Your task to perform on an android device: Open the Play Movies app and select the watchlist tab. Image 0: 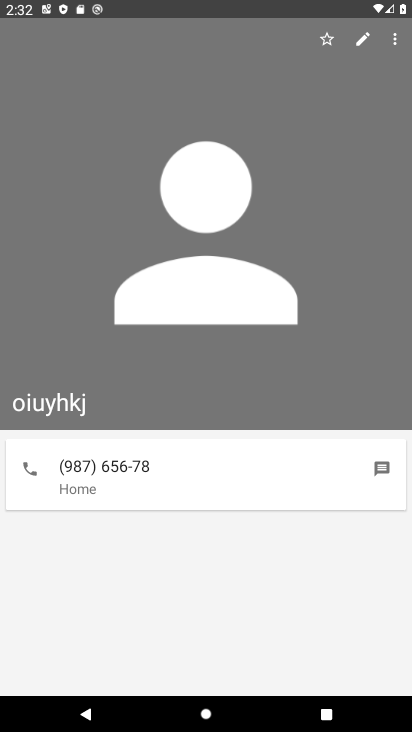
Step 0: press home button
Your task to perform on an android device: Open the Play Movies app and select the watchlist tab. Image 1: 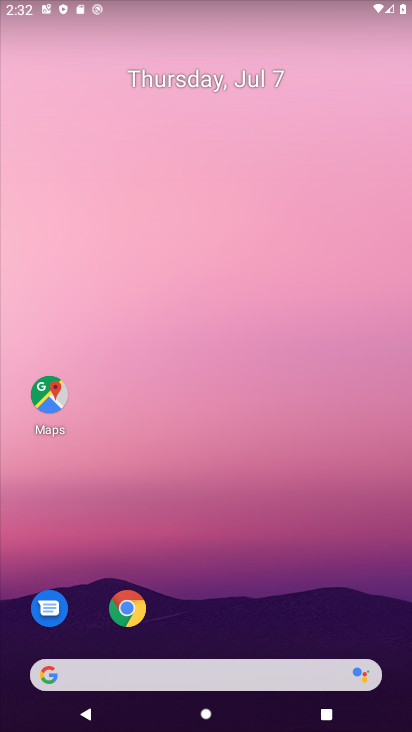
Step 1: drag from (401, 659) to (326, 2)
Your task to perform on an android device: Open the Play Movies app and select the watchlist tab. Image 2: 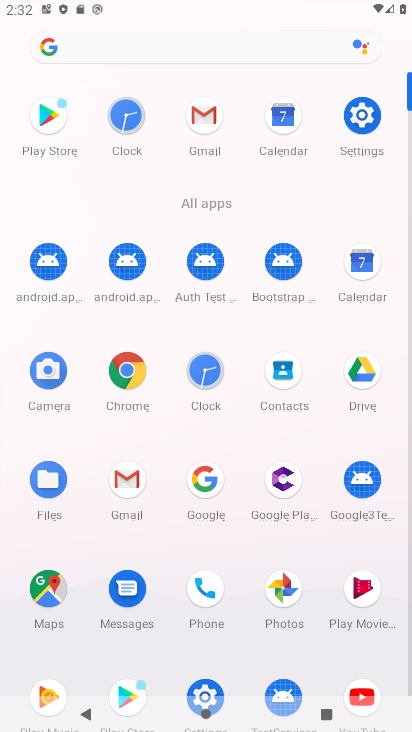
Step 2: click (409, 670)
Your task to perform on an android device: Open the Play Movies app and select the watchlist tab. Image 3: 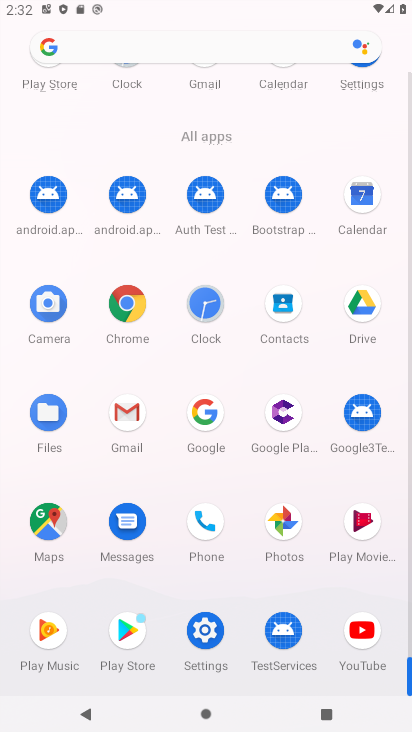
Step 3: click (365, 523)
Your task to perform on an android device: Open the Play Movies app and select the watchlist tab. Image 4: 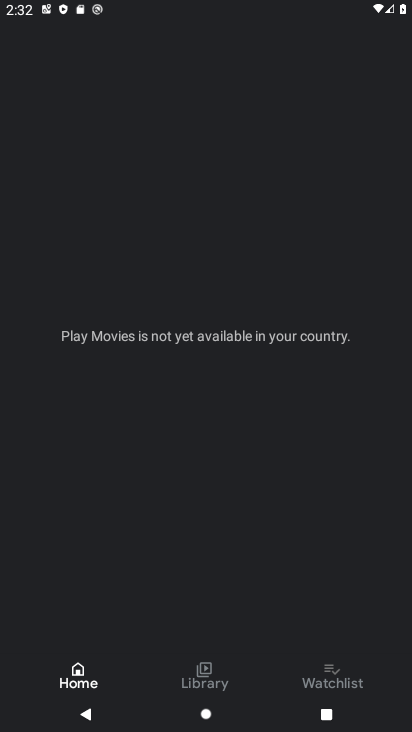
Step 4: click (327, 675)
Your task to perform on an android device: Open the Play Movies app and select the watchlist tab. Image 5: 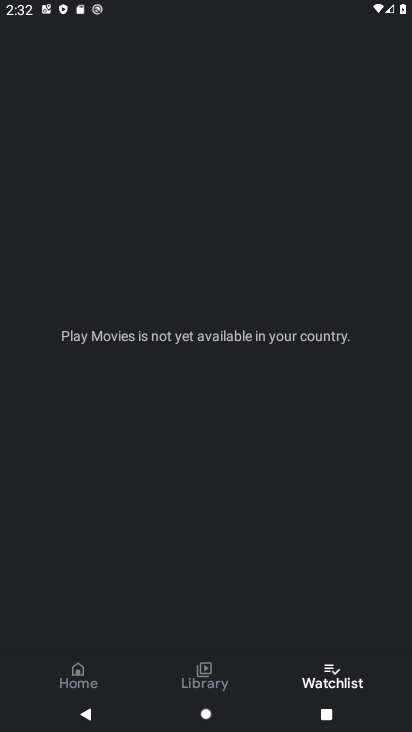
Step 5: task complete